Your task to perform on an android device: What's the weather going to be tomorrow? Image 0: 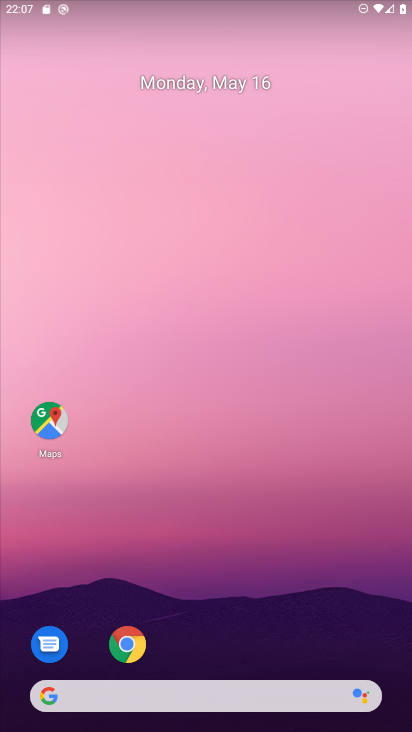
Step 0: click (200, 691)
Your task to perform on an android device: What's the weather going to be tomorrow? Image 1: 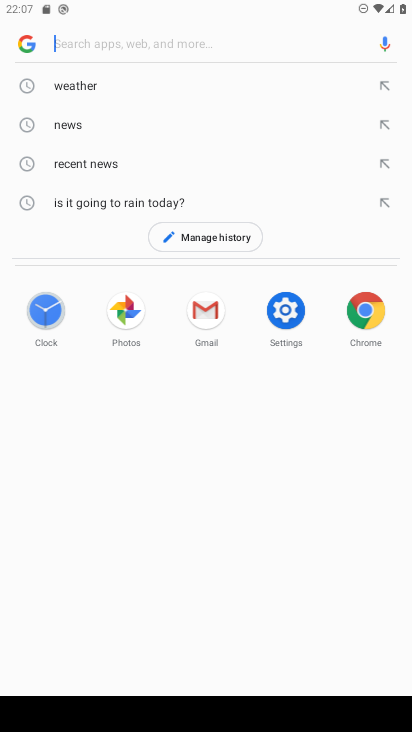
Step 1: click (74, 91)
Your task to perform on an android device: What's the weather going to be tomorrow? Image 2: 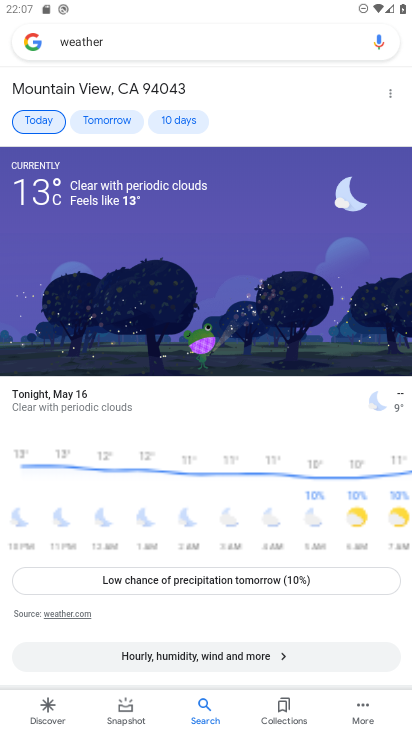
Step 2: task complete